Your task to perform on an android device: Open Maps and search for coffee Image 0: 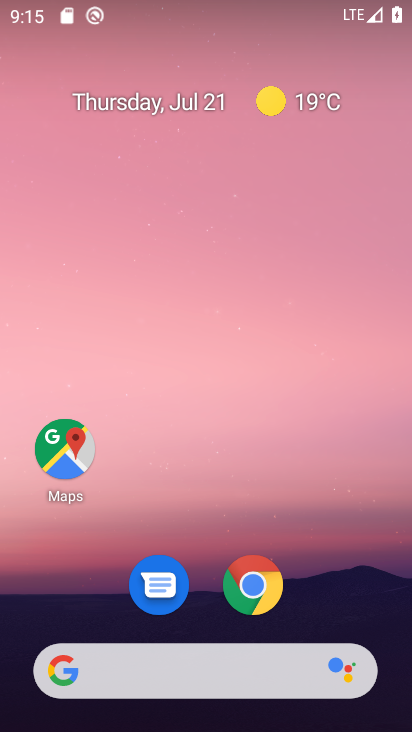
Step 0: click (56, 450)
Your task to perform on an android device: Open Maps and search for coffee Image 1: 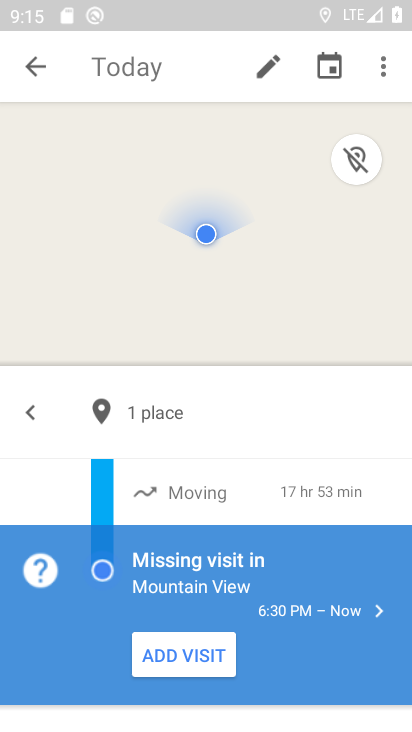
Step 1: click (38, 65)
Your task to perform on an android device: Open Maps and search for coffee Image 2: 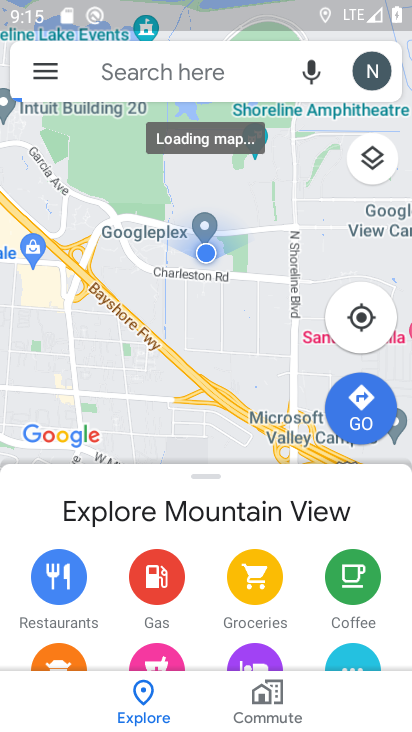
Step 2: click (101, 68)
Your task to perform on an android device: Open Maps and search for coffee Image 3: 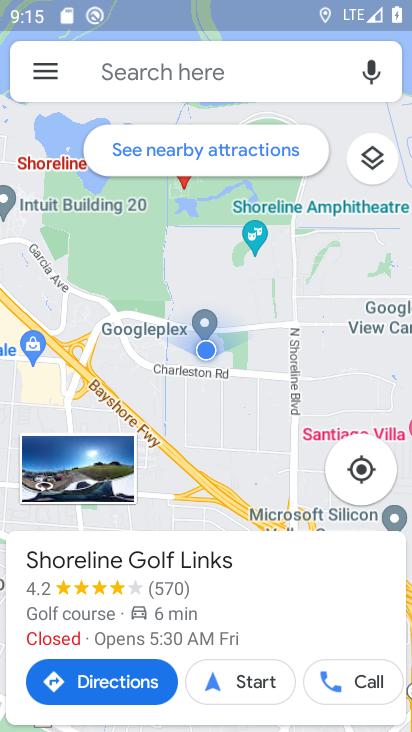
Step 3: click (121, 69)
Your task to perform on an android device: Open Maps and search for coffee Image 4: 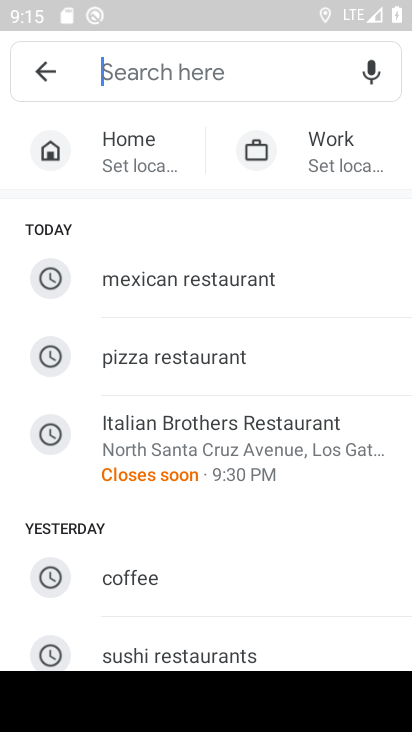
Step 4: click (141, 578)
Your task to perform on an android device: Open Maps and search for coffee Image 5: 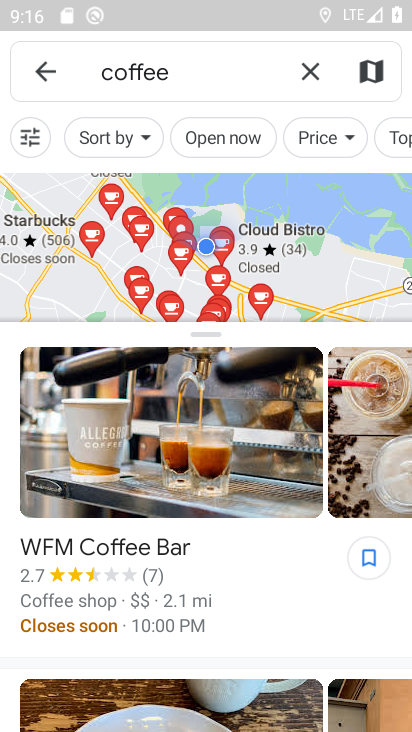
Step 5: task complete